Your task to perform on an android device: read, delete, or share a saved page in the chrome app Image 0: 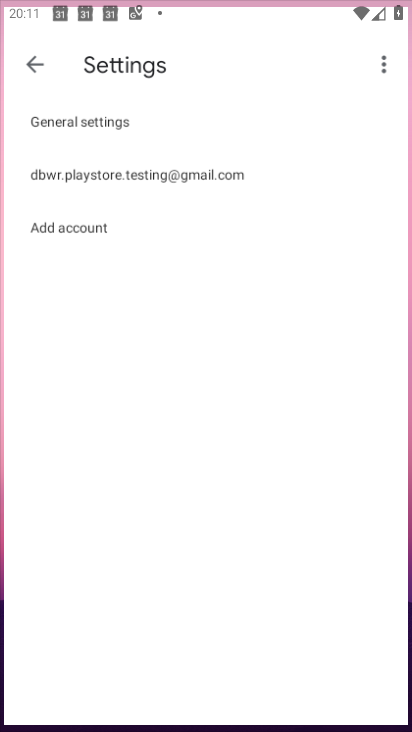
Step 0: drag from (310, 706) to (164, 260)
Your task to perform on an android device: read, delete, or share a saved page in the chrome app Image 1: 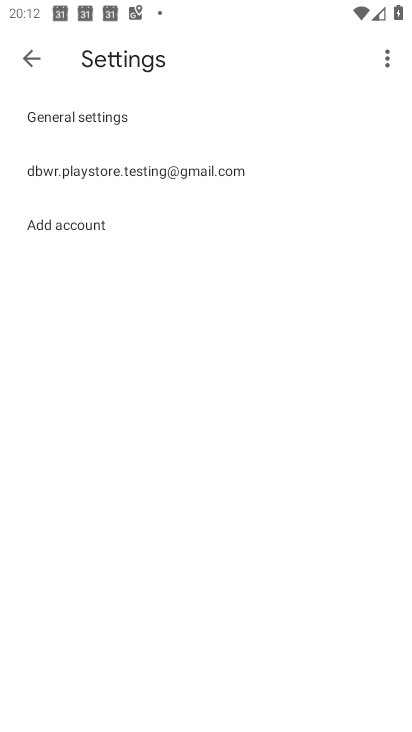
Step 1: press home button
Your task to perform on an android device: read, delete, or share a saved page in the chrome app Image 2: 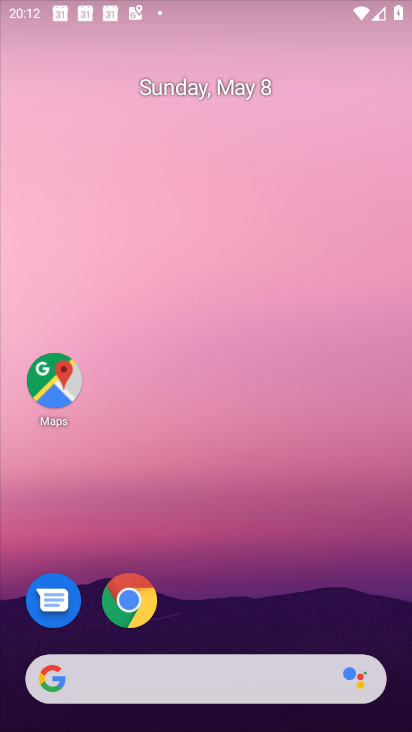
Step 2: drag from (221, 701) to (90, 236)
Your task to perform on an android device: read, delete, or share a saved page in the chrome app Image 3: 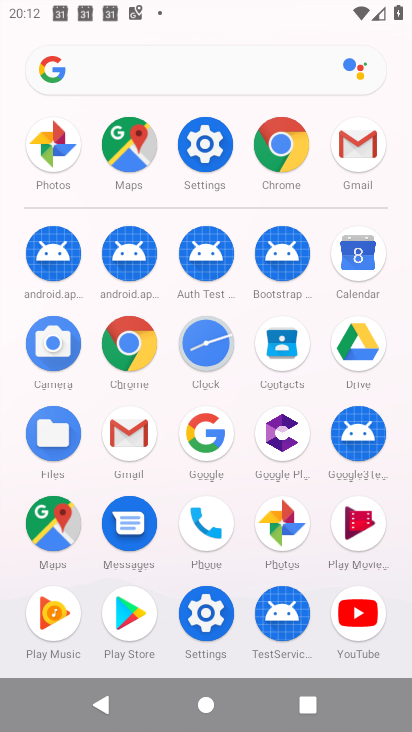
Step 3: click (257, 145)
Your task to perform on an android device: read, delete, or share a saved page in the chrome app Image 4: 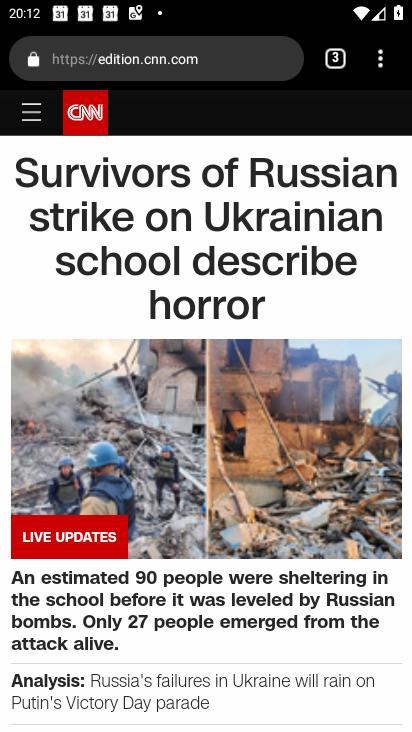
Step 4: click (379, 76)
Your task to perform on an android device: read, delete, or share a saved page in the chrome app Image 5: 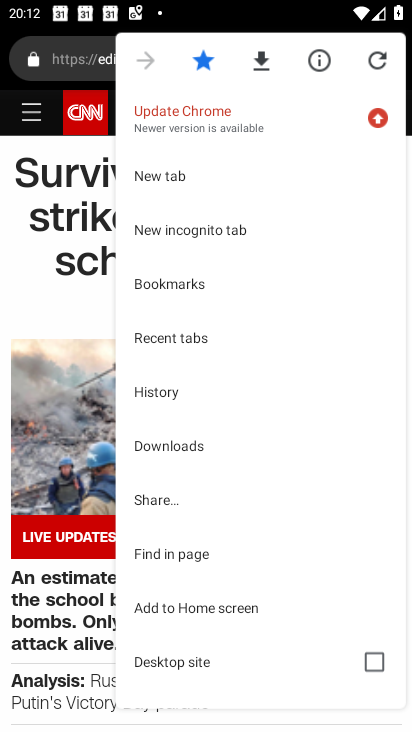
Step 5: click (227, 502)
Your task to perform on an android device: read, delete, or share a saved page in the chrome app Image 6: 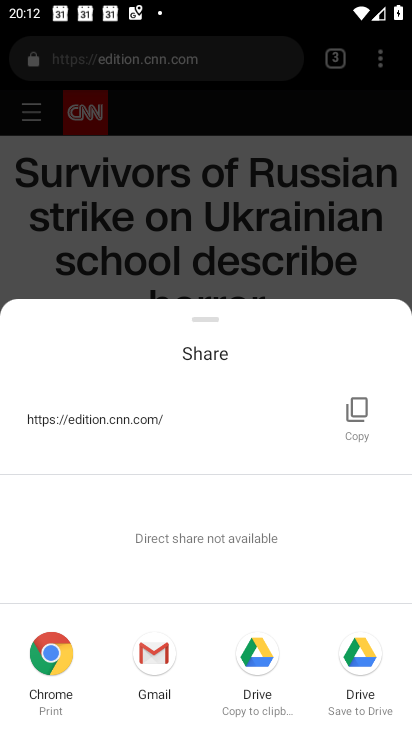
Step 6: click (49, 658)
Your task to perform on an android device: read, delete, or share a saved page in the chrome app Image 7: 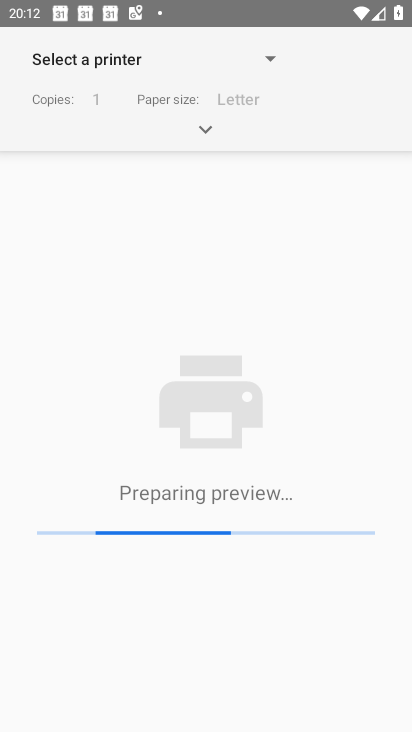
Step 7: task complete